Your task to perform on an android device: turn off smart reply in the gmail app Image 0: 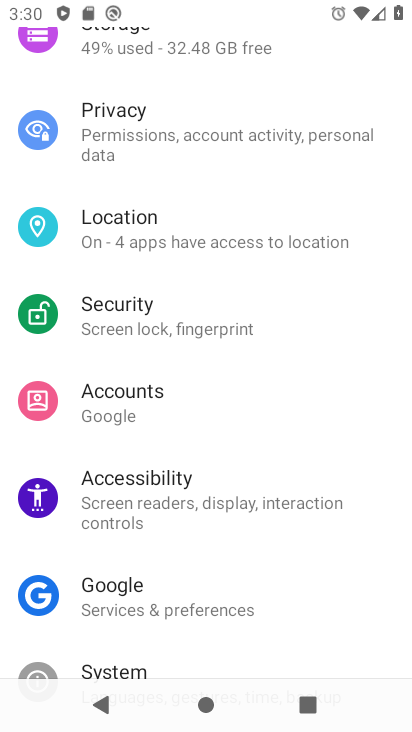
Step 0: press home button
Your task to perform on an android device: turn off smart reply in the gmail app Image 1: 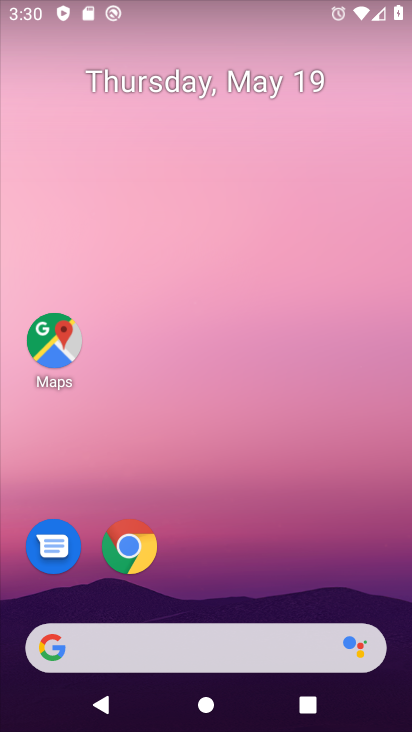
Step 1: drag from (210, 603) to (265, 50)
Your task to perform on an android device: turn off smart reply in the gmail app Image 2: 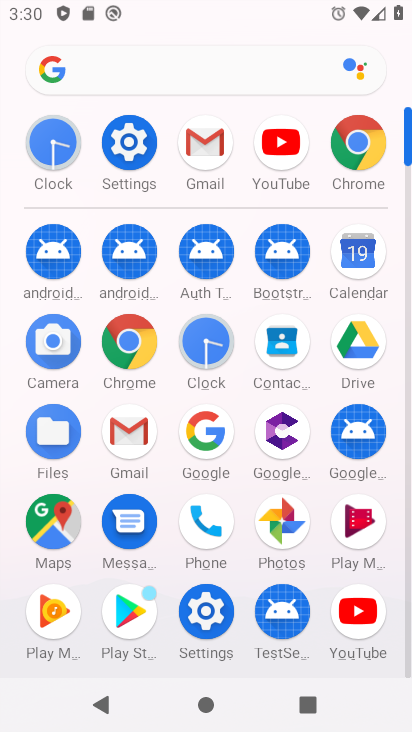
Step 2: click (203, 131)
Your task to perform on an android device: turn off smart reply in the gmail app Image 3: 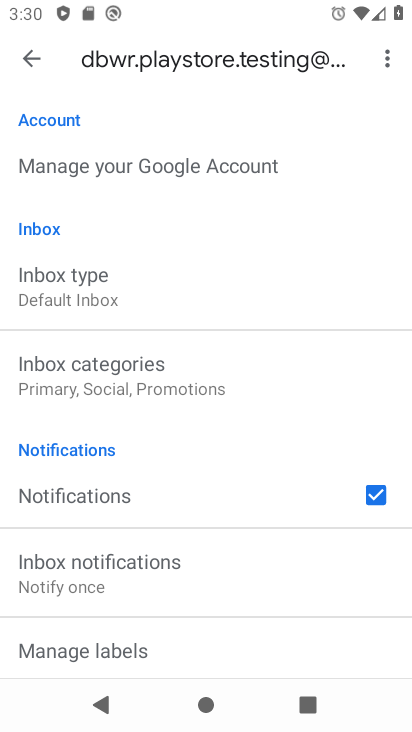
Step 3: task complete